Your task to perform on an android device: Open network settings Image 0: 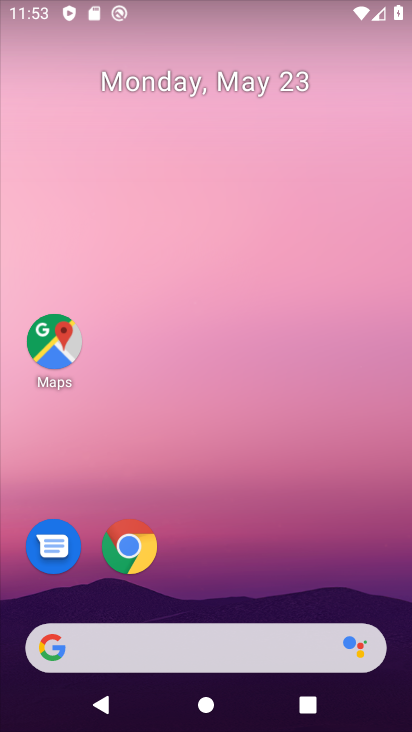
Step 0: drag from (283, 595) to (320, 7)
Your task to perform on an android device: Open network settings Image 1: 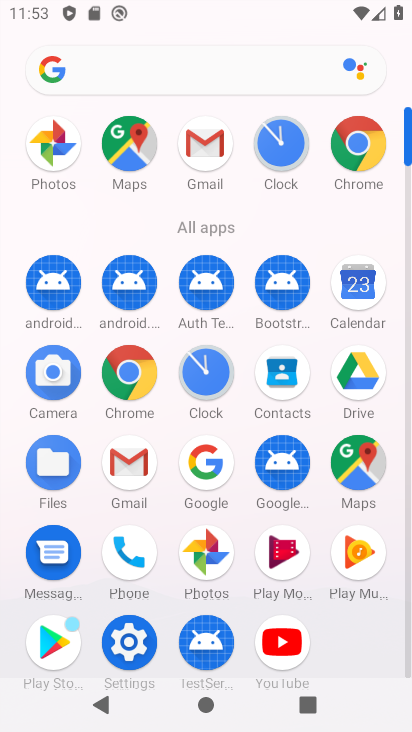
Step 1: click (124, 641)
Your task to perform on an android device: Open network settings Image 2: 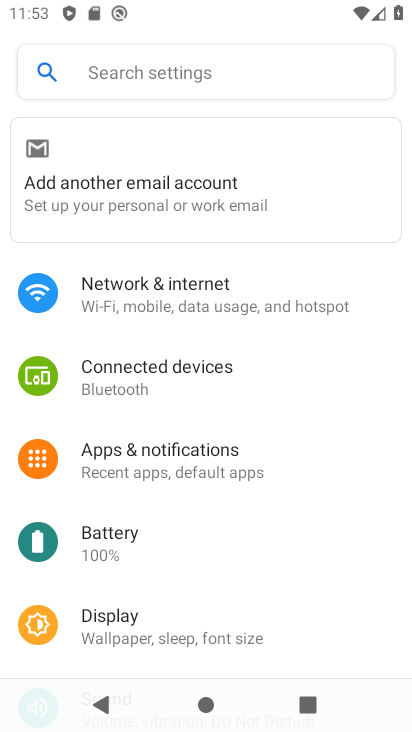
Step 2: click (278, 299)
Your task to perform on an android device: Open network settings Image 3: 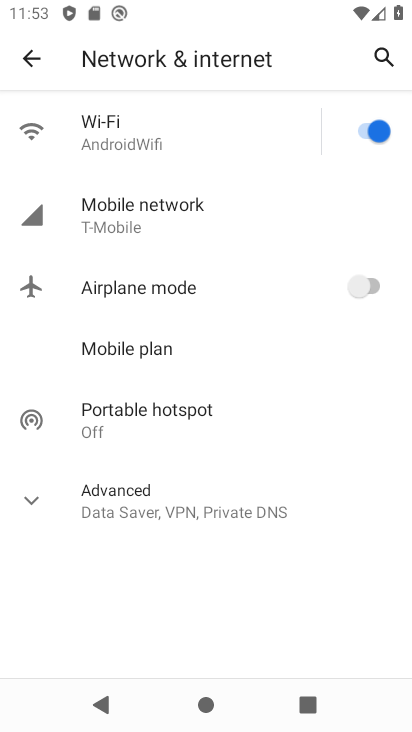
Step 3: click (176, 213)
Your task to perform on an android device: Open network settings Image 4: 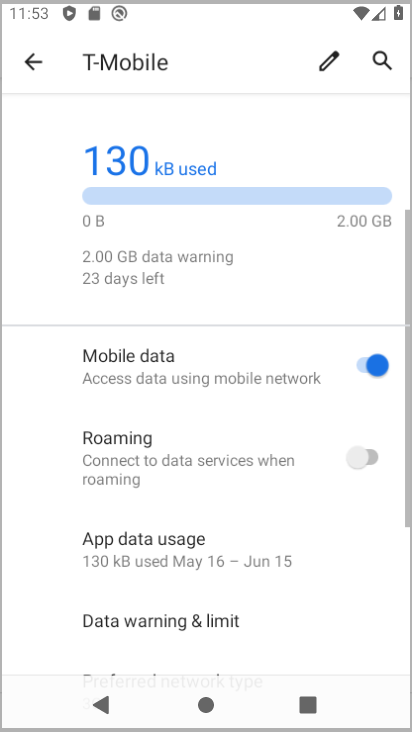
Step 4: task complete